Your task to perform on an android device: Open the calendar and show me this week's events Image 0: 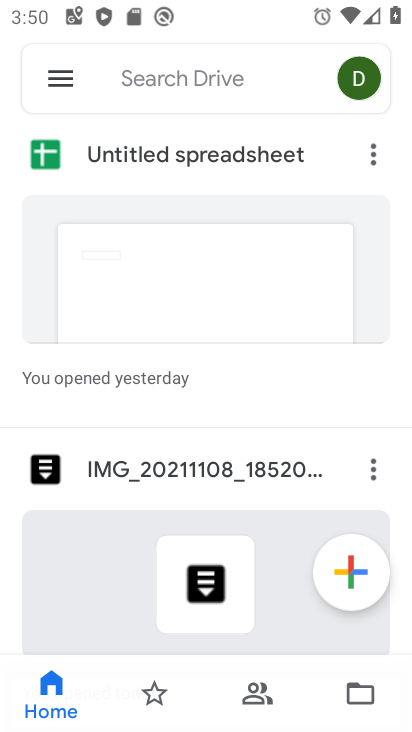
Step 0: press home button
Your task to perform on an android device: Open the calendar and show me this week's events Image 1: 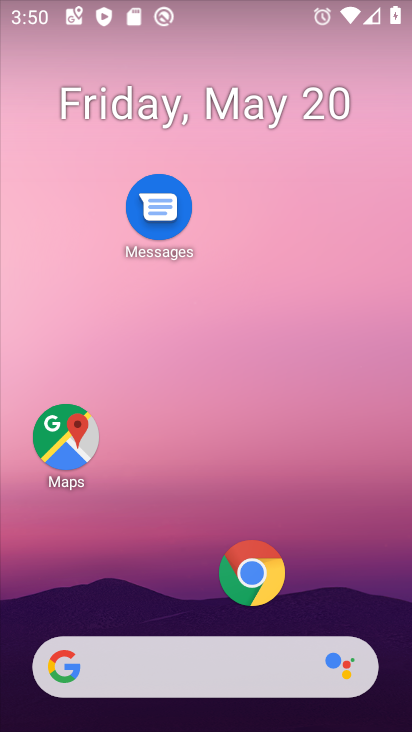
Step 1: drag from (201, 627) to (177, 11)
Your task to perform on an android device: Open the calendar and show me this week's events Image 2: 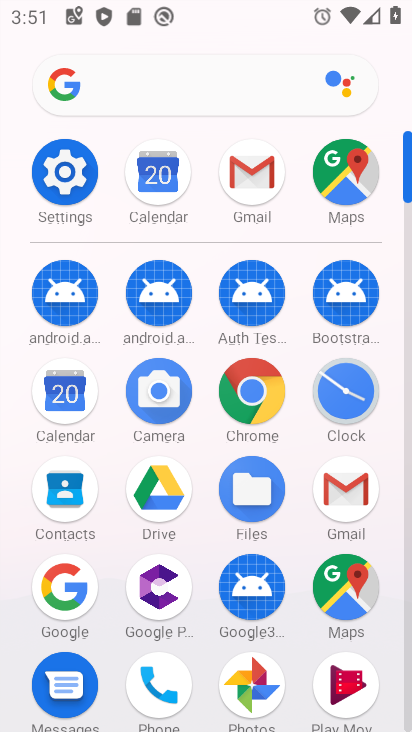
Step 2: click (52, 408)
Your task to perform on an android device: Open the calendar and show me this week's events Image 3: 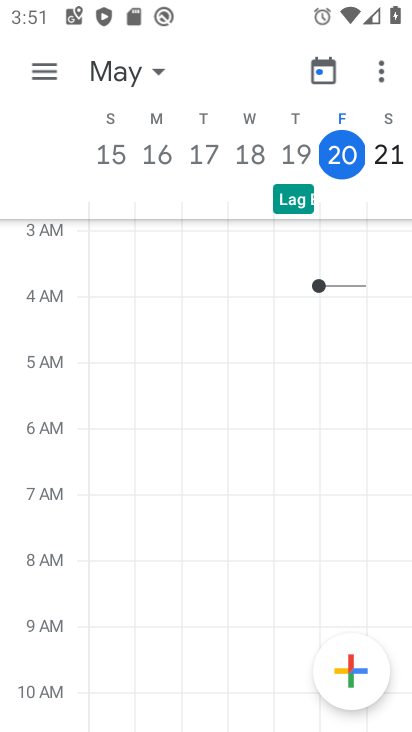
Step 3: task complete